Your task to perform on an android device: Toggle the flashlight Image 0: 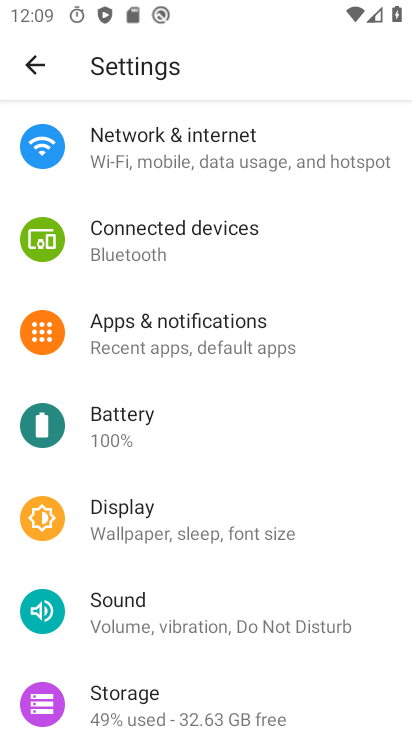
Step 0: drag from (255, 586) to (188, 242)
Your task to perform on an android device: Toggle the flashlight Image 1: 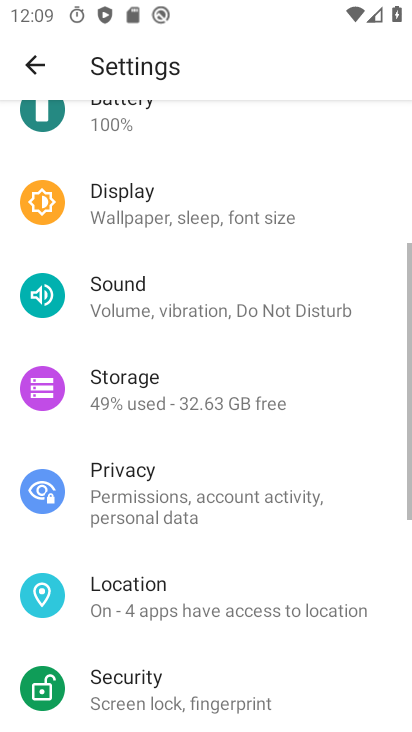
Step 1: task complete